Your task to perform on an android device: Go to network settings Image 0: 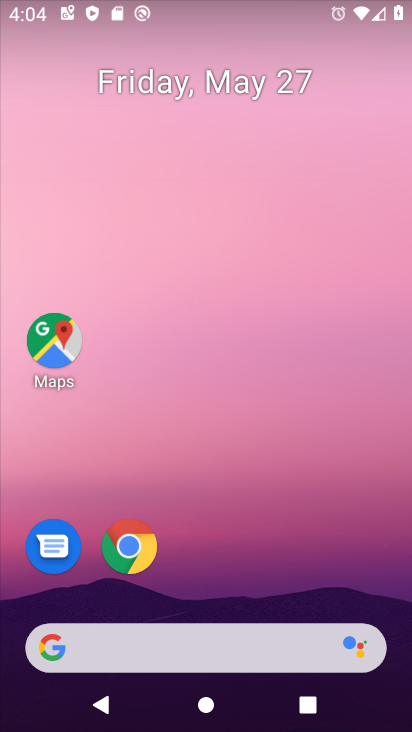
Step 0: press home button
Your task to perform on an android device: Go to network settings Image 1: 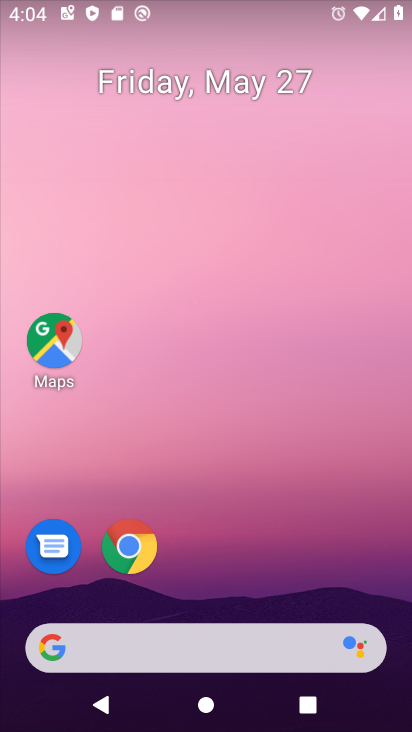
Step 1: drag from (205, 593) to (213, 9)
Your task to perform on an android device: Go to network settings Image 2: 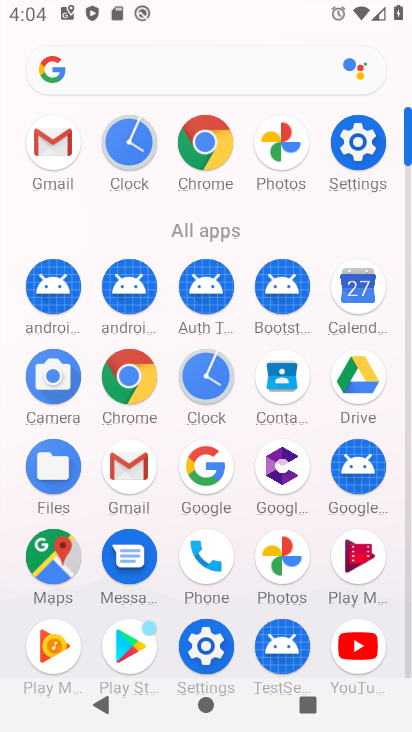
Step 2: click (356, 137)
Your task to perform on an android device: Go to network settings Image 3: 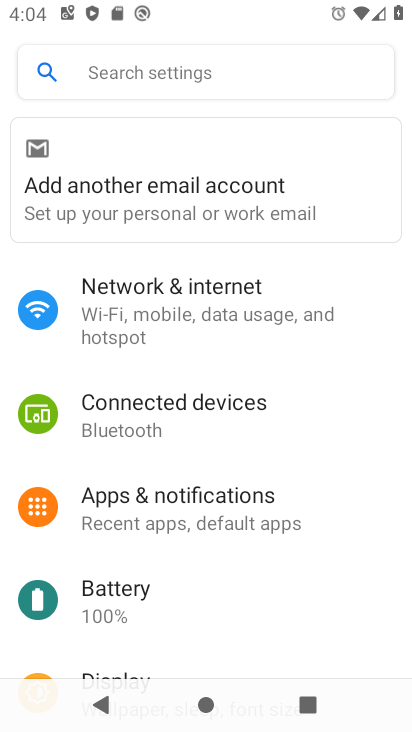
Step 3: click (276, 283)
Your task to perform on an android device: Go to network settings Image 4: 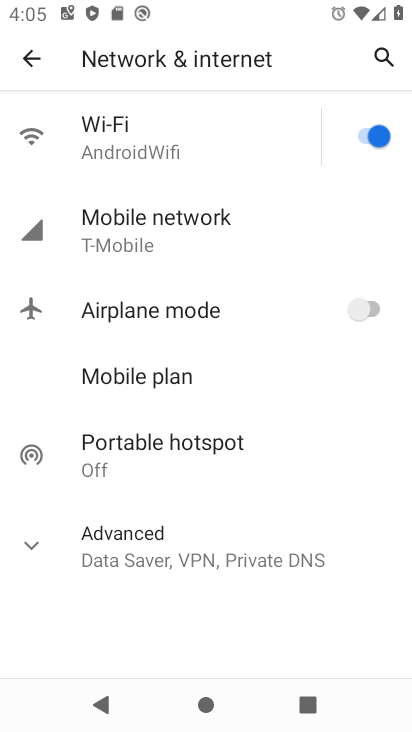
Step 4: click (28, 543)
Your task to perform on an android device: Go to network settings Image 5: 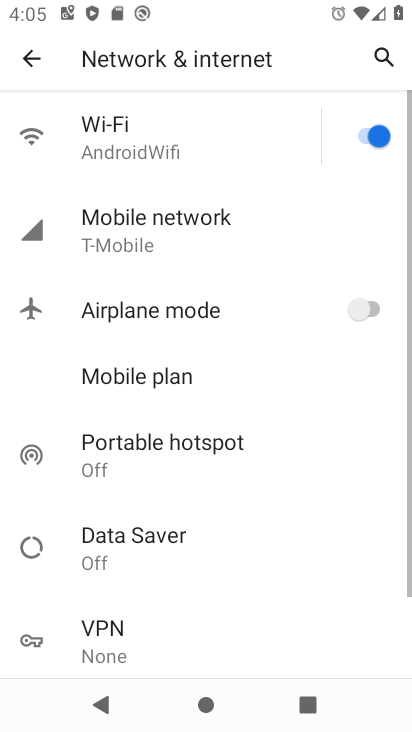
Step 5: task complete